Your task to perform on an android device: set the timer Image 0: 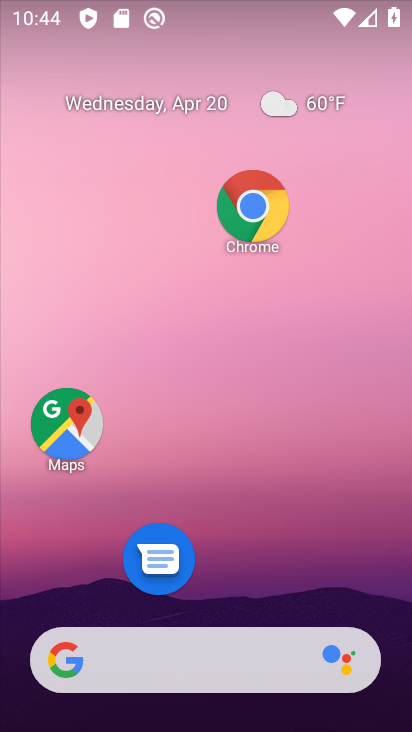
Step 0: drag from (341, 625) to (251, 43)
Your task to perform on an android device: set the timer Image 1: 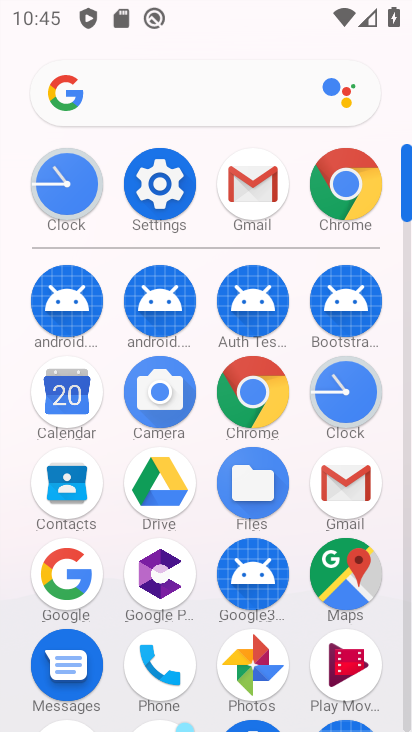
Step 1: click (341, 383)
Your task to perform on an android device: set the timer Image 2: 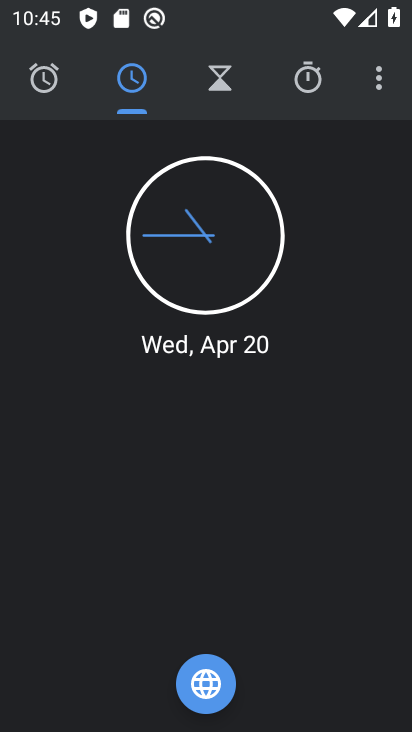
Step 2: click (307, 82)
Your task to perform on an android device: set the timer Image 3: 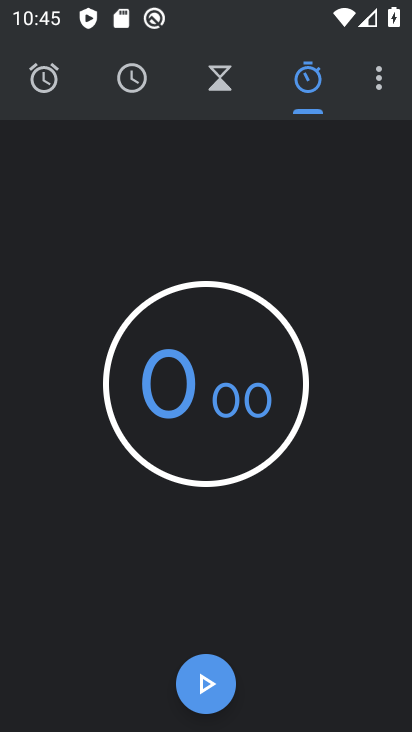
Step 3: click (228, 86)
Your task to perform on an android device: set the timer Image 4: 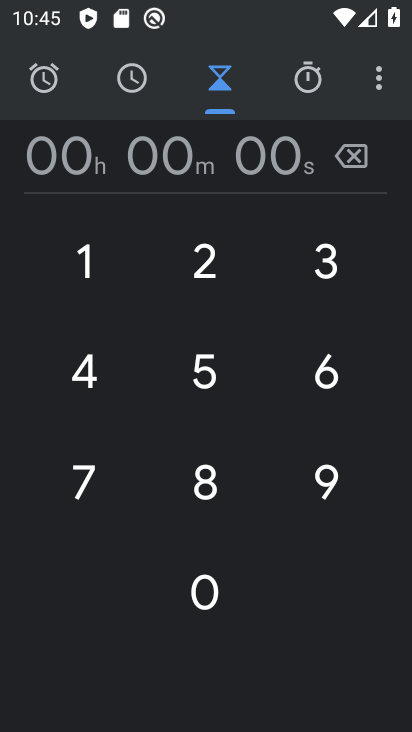
Step 4: click (212, 591)
Your task to perform on an android device: set the timer Image 5: 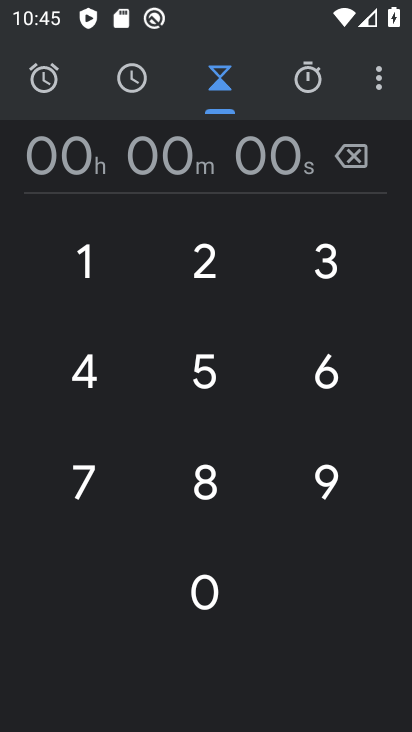
Step 5: click (333, 486)
Your task to perform on an android device: set the timer Image 6: 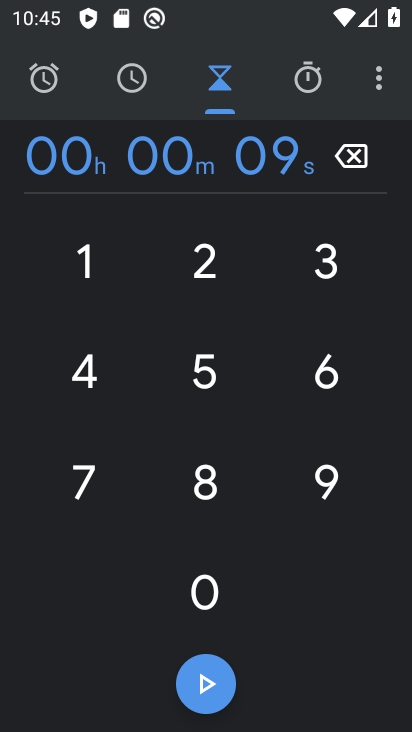
Step 6: click (208, 272)
Your task to perform on an android device: set the timer Image 7: 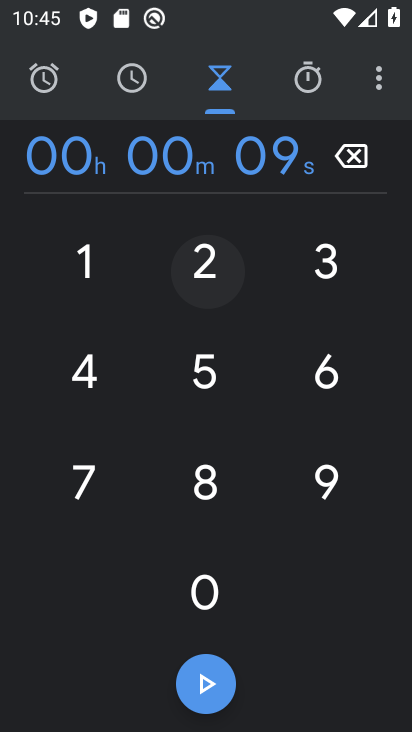
Step 7: click (321, 253)
Your task to perform on an android device: set the timer Image 8: 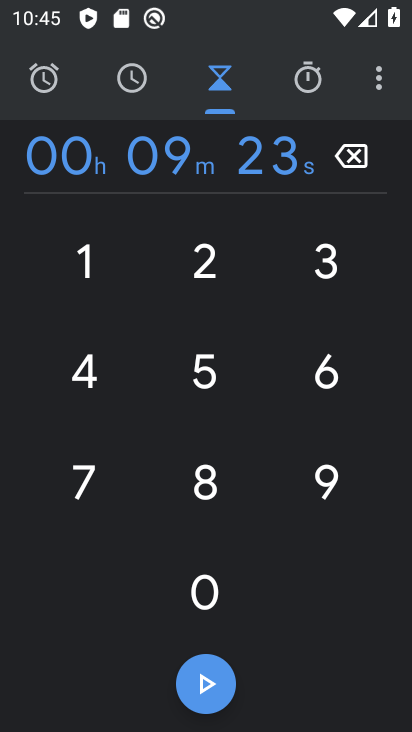
Step 8: click (210, 476)
Your task to perform on an android device: set the timer Image 9: 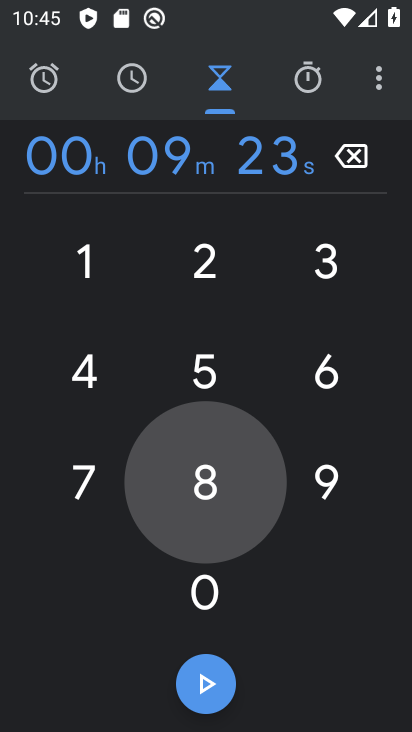
Step 9: click (335, 378)
Your task to perform on an android device: set the timer Image 10: 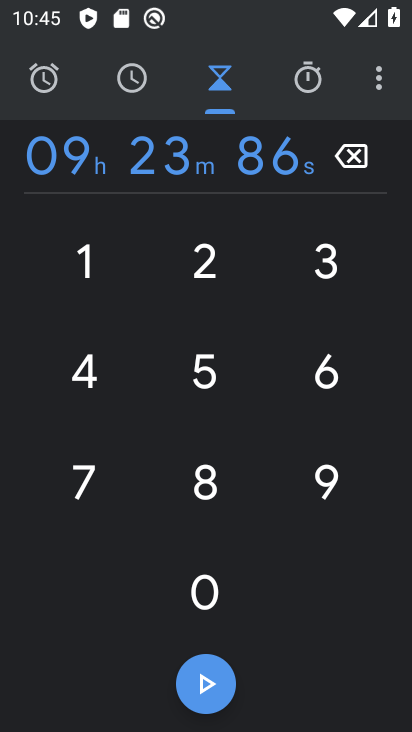
Step 10: click (230, 695)
Your task to perform on an android device: set the timer Image 11: 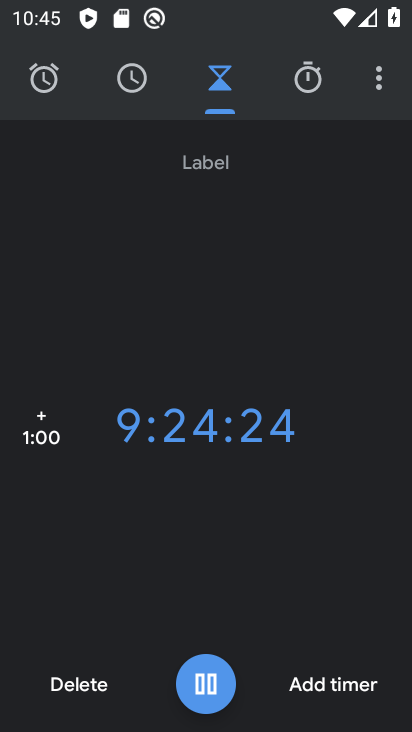
Step 11: task complete